Your task to perform on an android device: turn on the 24-hour format for clock Image 0: 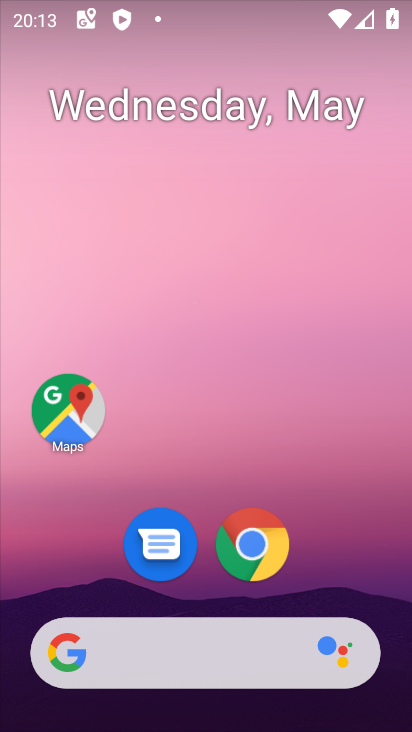
Step 0: drag from (193, 584) to (136, 172)
Your task to perform on an android device: turn on the 24-hour format for clock Image 1: 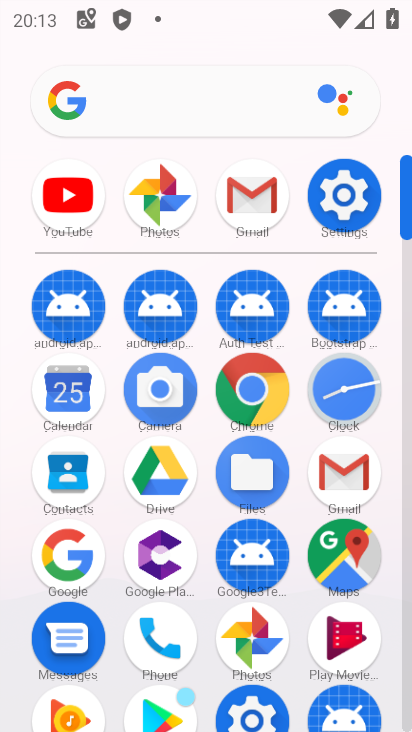
Step 1: click (336, 403)
Your task to perform on an android device: turn on the 24-hour format for clock Image 2: 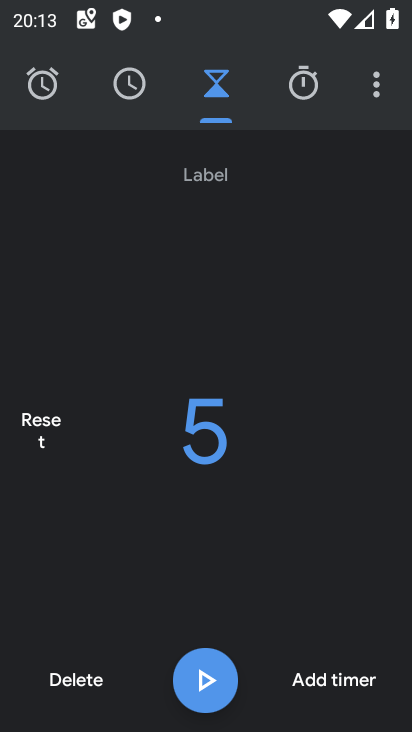
Step 2: click (368, 82)
Your task to perform on an android device: turn on the 24-hour format for clock Image 3: 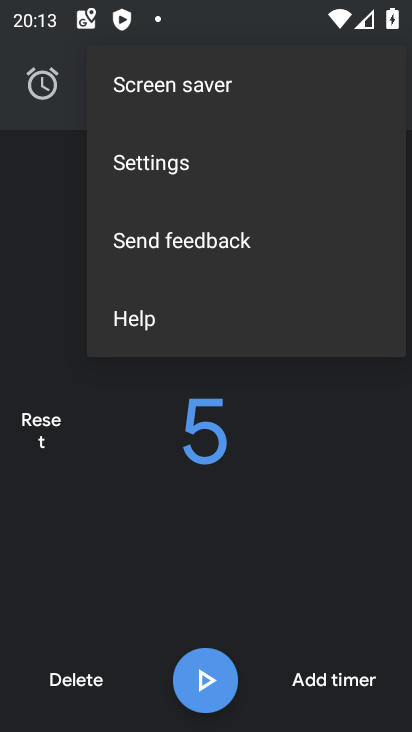
Step 3: click (236, 175)
Your task to perform on an android device: turn on the 24-hour format for clock Image 4: 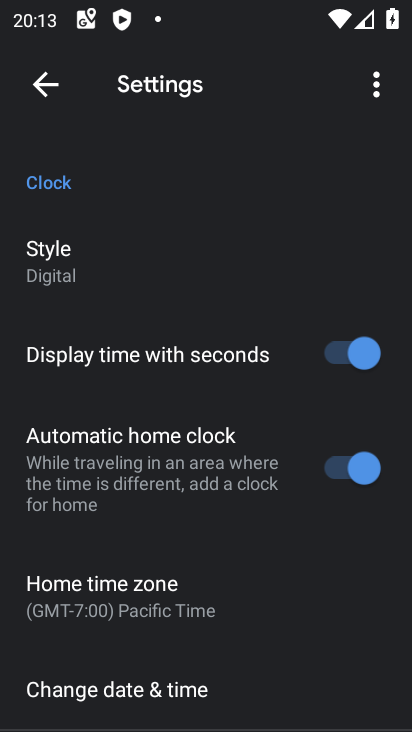
Step 4: drag from (127, 644) to (123, 362)
Your task to perform on an android device: turn on the 24-hour format for clock Image 5: 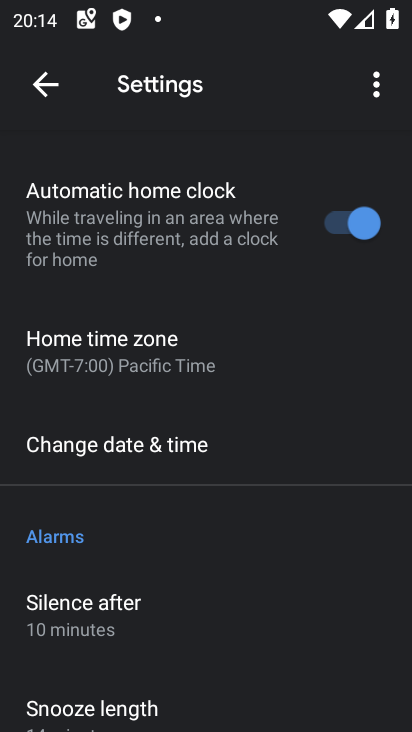
Step 5: click (140, 461)
Your task to perform on an android device: turn on the 24-hour format for clock Image 6: 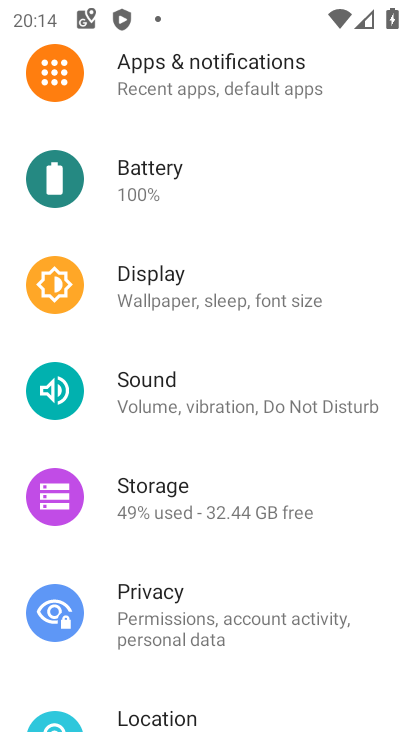
Step 6: press back button
Your task to perform on an android device: turn on the 24-hour format for clock Image 7: 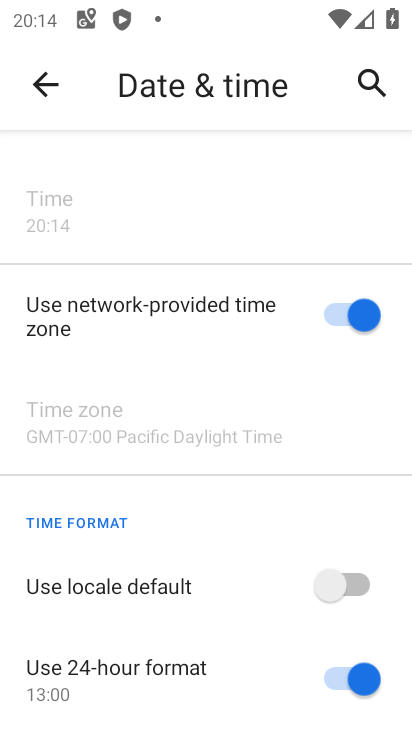
Step 7: click (356, 585)
Your task to perform on an android device: turn on the 24-hour format for clock Image 8: 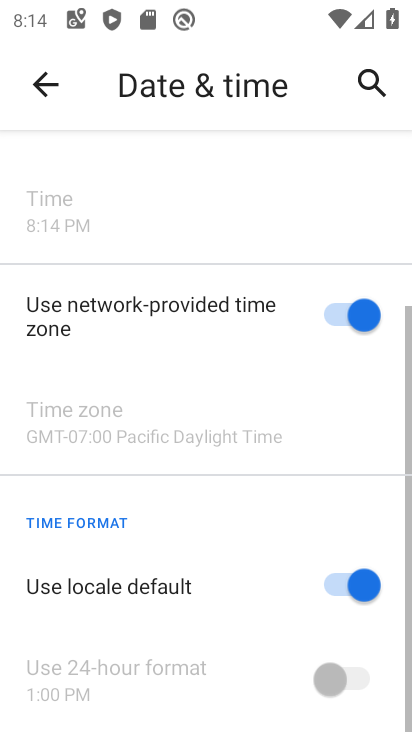
Step 8: click (356, 585)
Your task to perform on an android device: turn on the 24-hour format for clock Image 9: 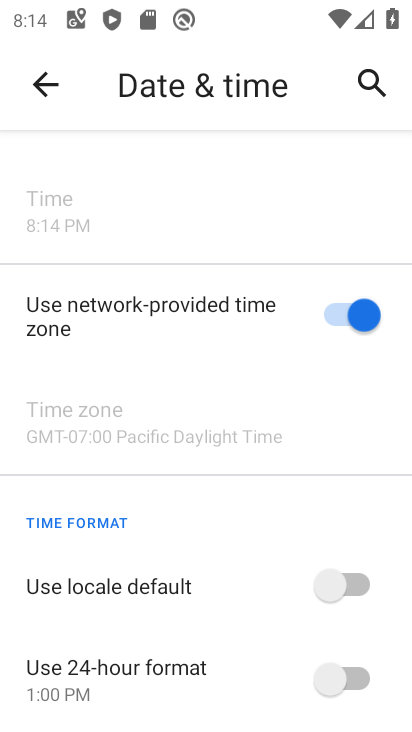
Step 9: click (341, 674)
Your task to perform on an android device: turn on the 24-hour format for clock Image 10: 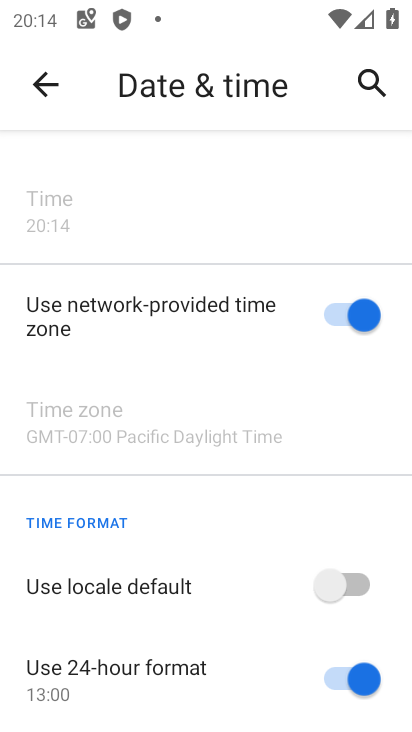
Step 10: task complete